Your task to perform on an android device: allow cookies in the chrome app Image 0: 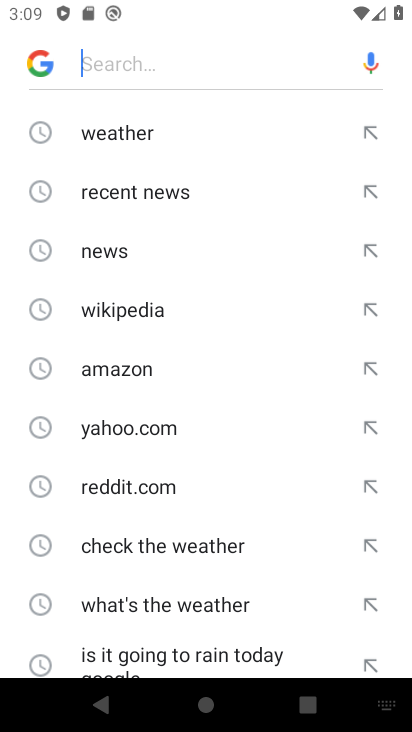
Step 0: press home button
Your task to perform on an android device: allow cookies in the chrome app Image 1: 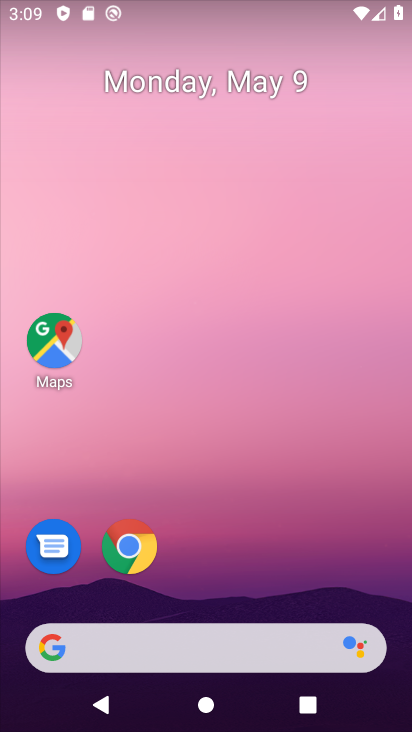
Step 1: click (151, 539)
Your task to perform on an android device: allow cookies in the chrome app Image 2: 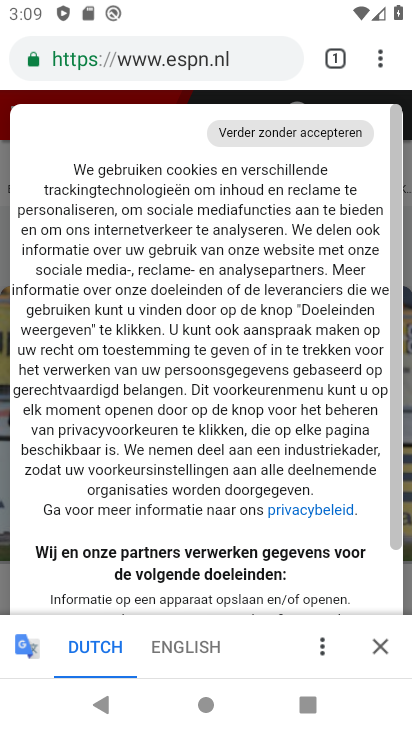
Step 2: drag from (392, 63) to (182, 569)
Your task to perform on an android device: allow cookies in the chrome app Image 3: 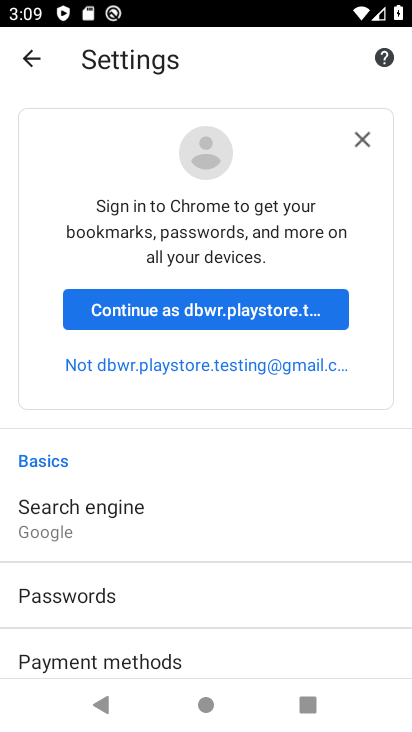
Step 3: drag from (239, 575) to (165, 315)
Your task to perform on an android device: allow cookies in the chrome app Image 4: 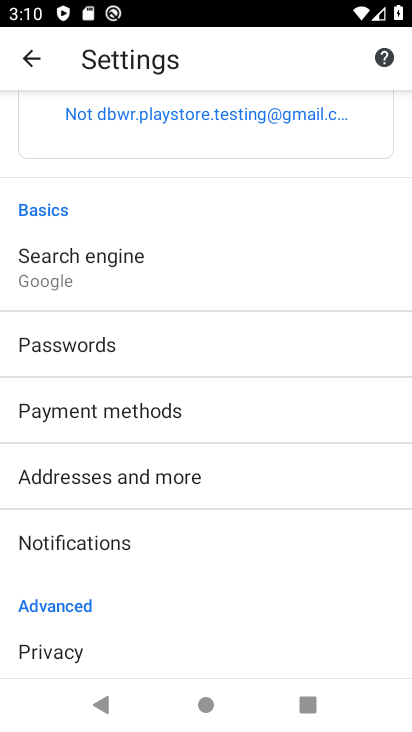
Step 4: drag from (201, 514) to (137, 323)
Your task to perform on an android device: allow cookies in the chrome app Image 5: 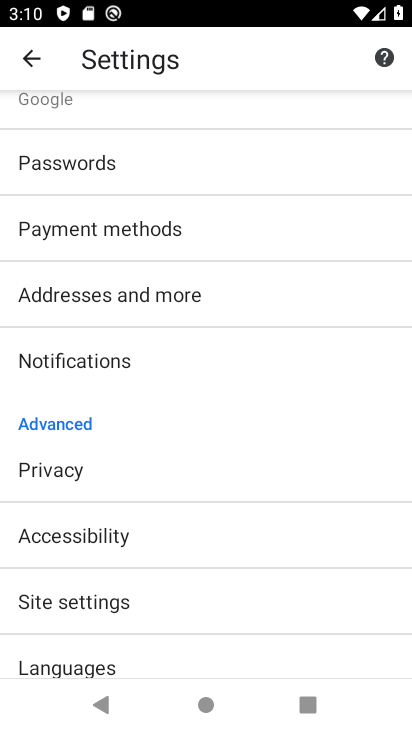
Step 5: click (98, 598)
Your task to perform on an android device: allow cookies in the chrome app Image 6: 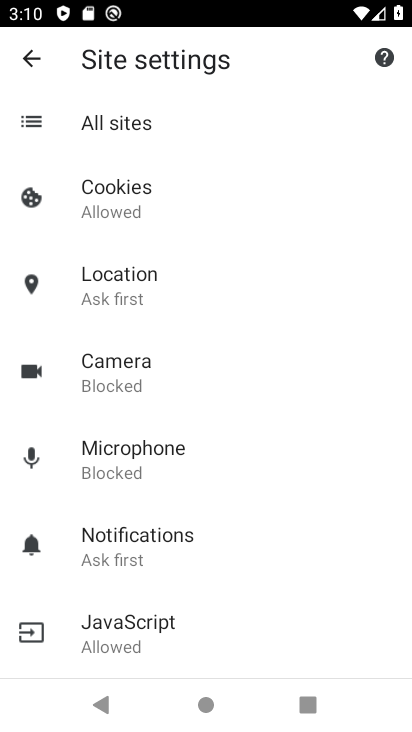
Step 6: click (103, 186)
Your task to perform on an android device: allow cookies in the chrome app Image 7: 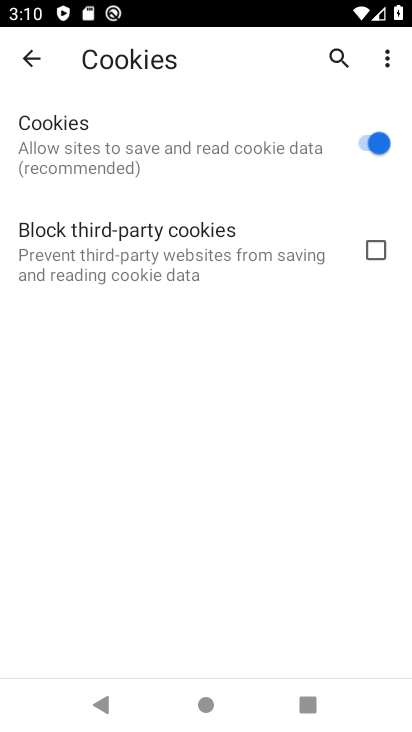
Step 7: task complete